Your task to perform on an android device: toggle improve location accuracy Image 0: 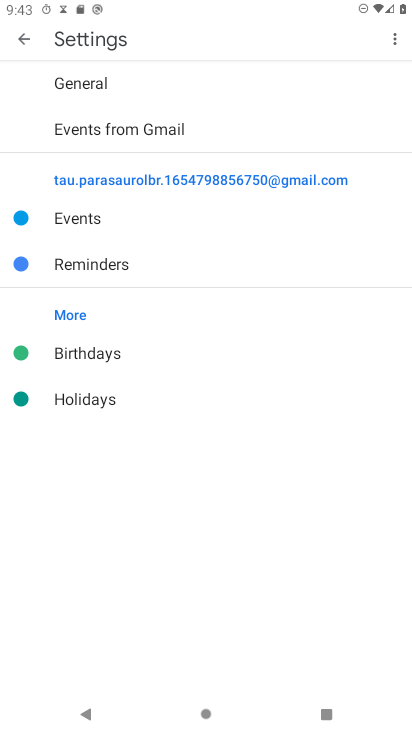
Step 0: press back button
Your task to perform on an android device: toggle improve location accuracy Image 1: 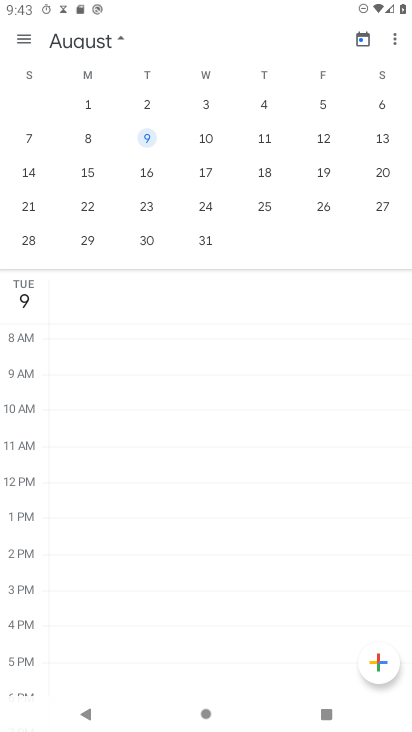
Step 1: press home button
Your task to perform on an android device: toggle improve location accuracy Image 2: 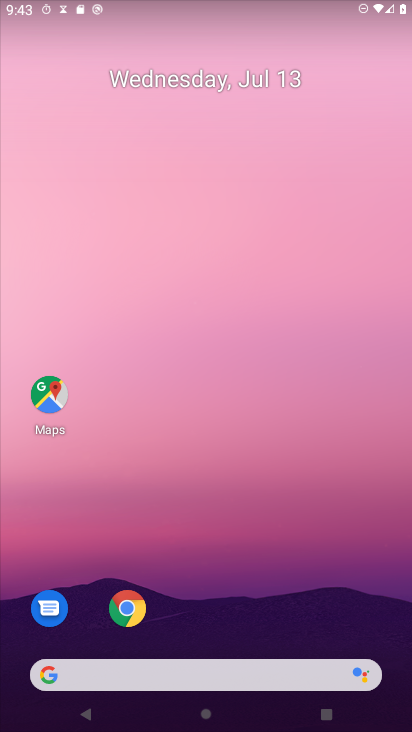
Step 2: drag from (298, 591) to (314, 352)
Your task to perform on an android device: toggle improve location accuracy Image 3: 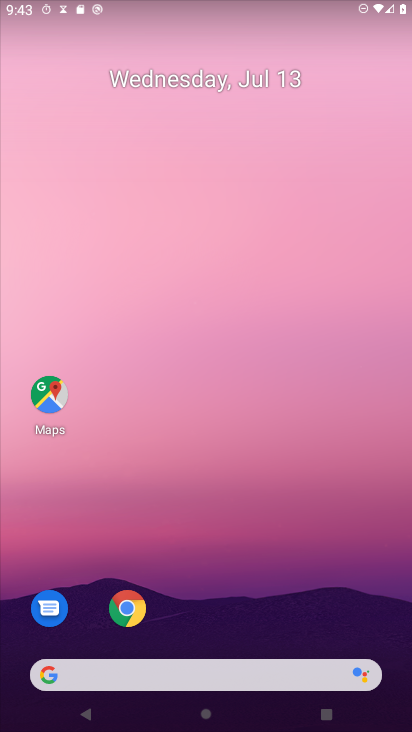
Step 3: drag from (202, 279) to (198, 61)
Your task to perform on an android device: toggle improve location accuracy Image 4: 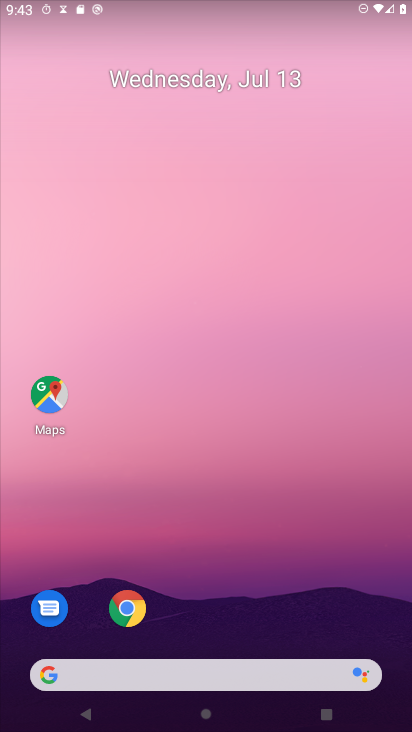
Step 4: drag from (157, 604) to (123, 378)
Your task to perform on an android device: toggle improve location accuracy Image 5: 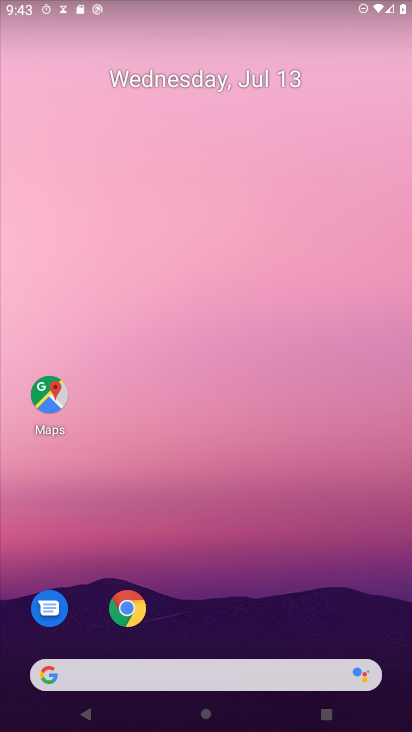
Step 5: drag from (157, 560) to (245, 202)
Your task to perform on an android device: toggle improve location accuracy Image 6: 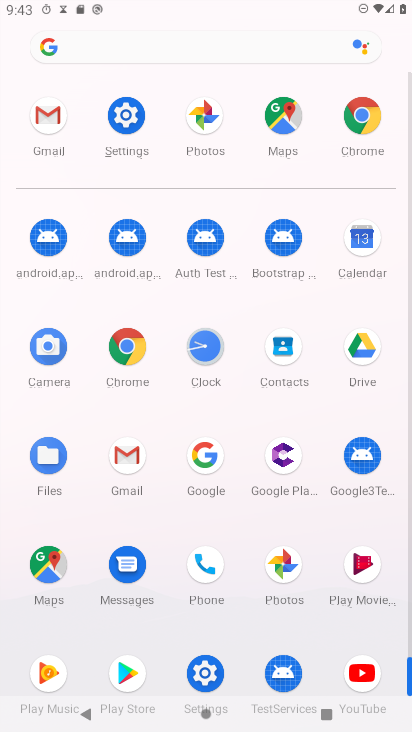
Step 6: click (134, 135)
Your task to perform on an android device: toggle improve location accuracy Image 7: 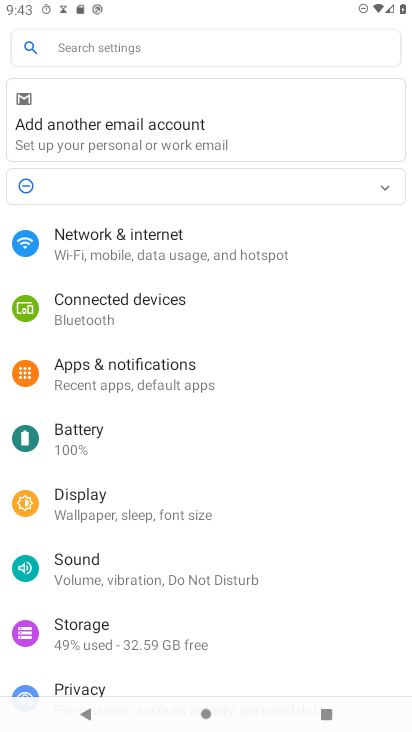
Step 7: drag from (197, 574) to (137, 306)
Your task to perform on an android device: toggle improve location accuracy Image 8: 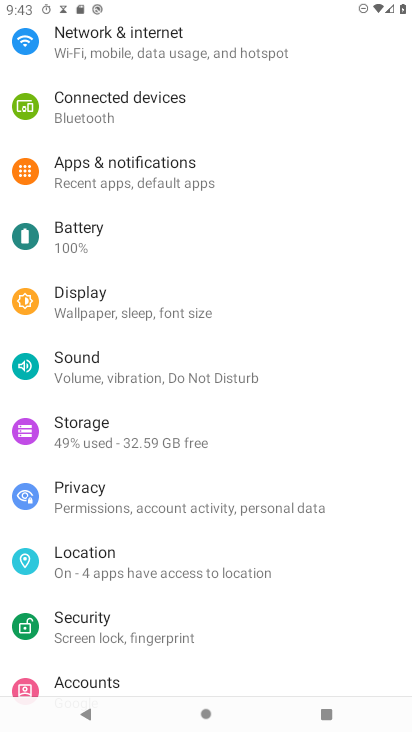
Step 8: drag from (153, 574) to (178, 344)
Your task to perform on an android device: toggle improve location accuracy Image 9: 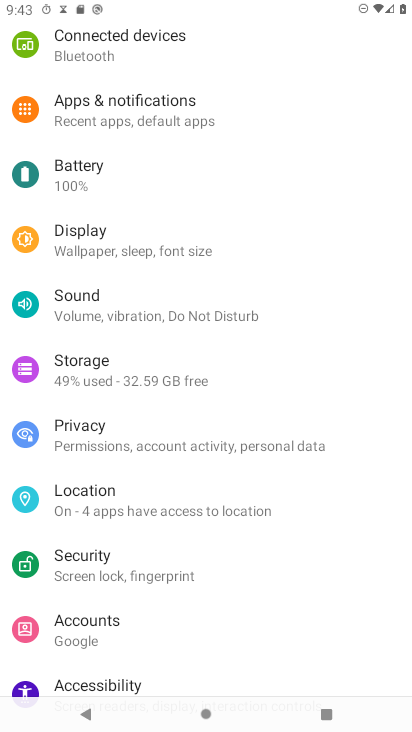
Step 9: drag from (181, 542) to (138, 362)
Your task to perform on an android device: toggle improve location accuracy Image 10: 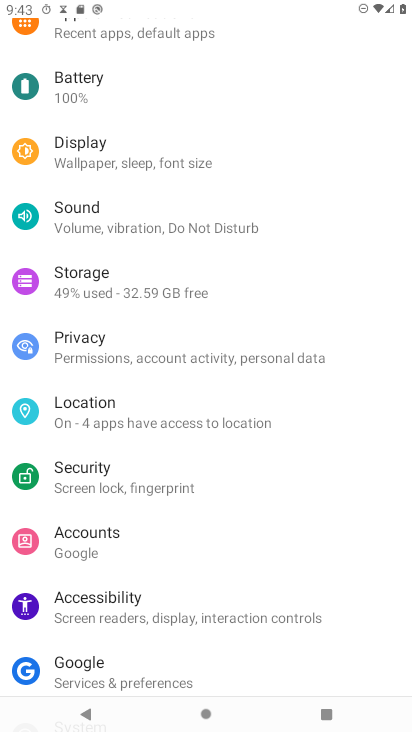
Step 10: click (124, 414)
Your task to perform on an android device: toggle improve location accuracy Image 11: 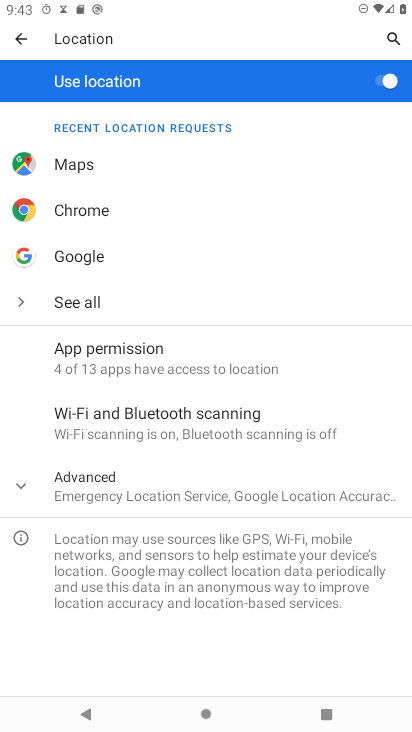
Step 11: click (142, 494)
Your task to perform on an android device: toggle improve location accuracy Image 12: 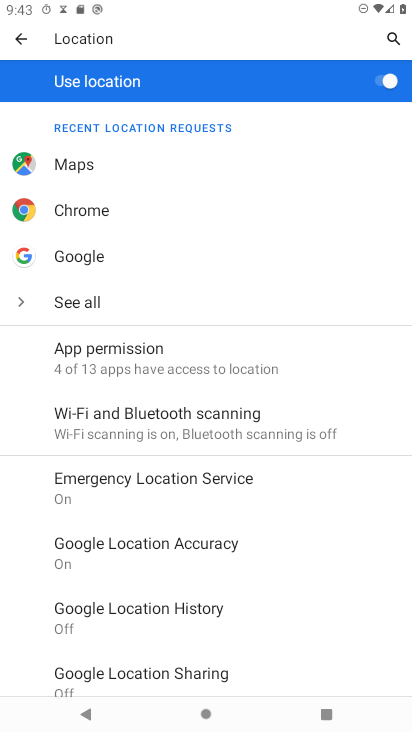
Step 12: click (179, 540)
Your task to perform on an android device: toggle improve location accuracy Image 13: 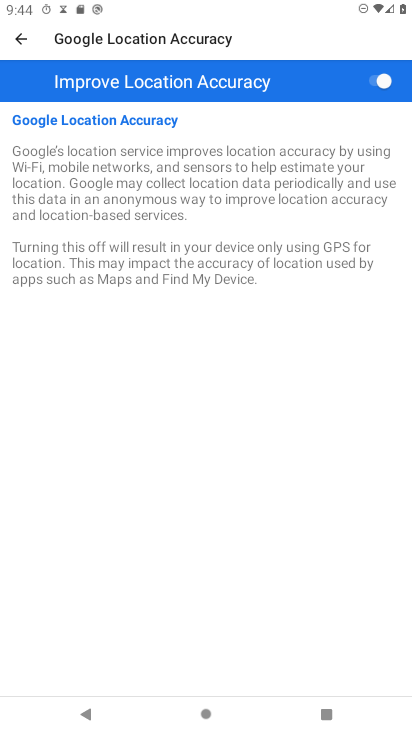
Step 13: task complete